Your task to perform on an android device: Open Youtube and go to "Your channel" Image 0: 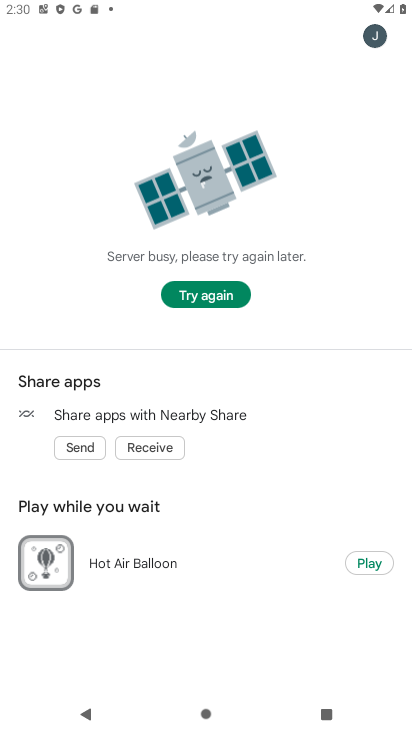
Step 0: press home button
Your task to perform on an android device: Open Youtube and go to "Your channel" Image 1: 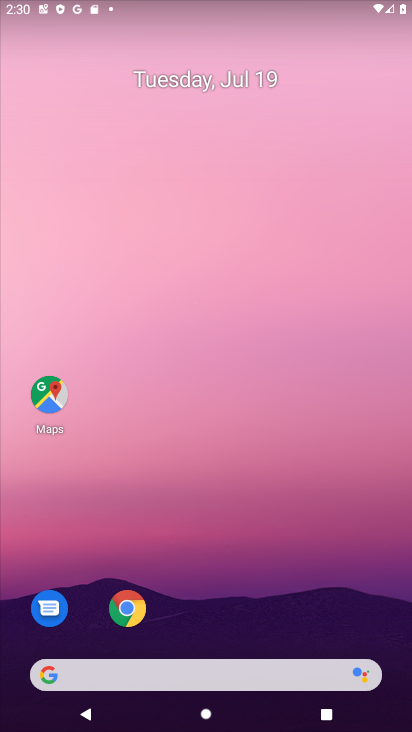
Step 1: drag from (304, 544) to (201, 38)
Your task to perform on an android device: Open Youtube and go to "Your channel" Image 2: 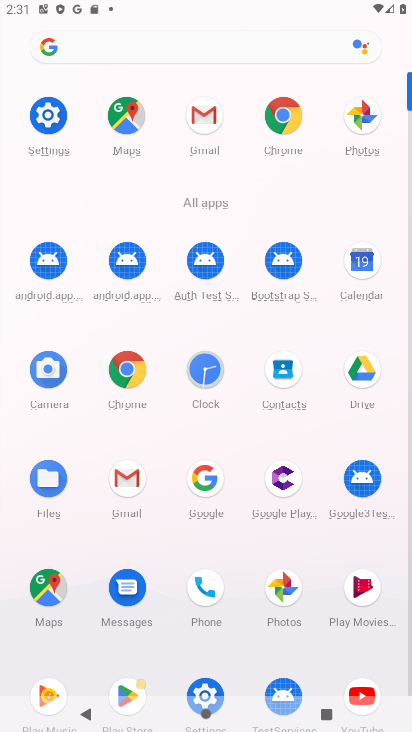
Step 2: click (357, 695)
Your task to perform on an android device: Open Youtube and go to "Your channel" Image 3: 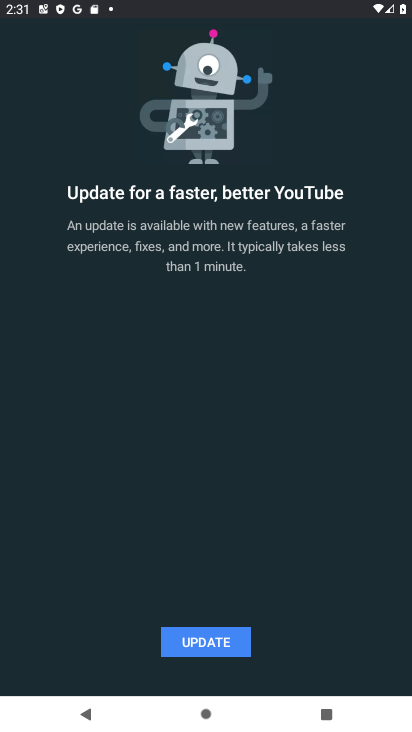
Step 3: click (204, 641)
Your task to perform on an android device: Open Youtube and go to "Your channel" Image 4: 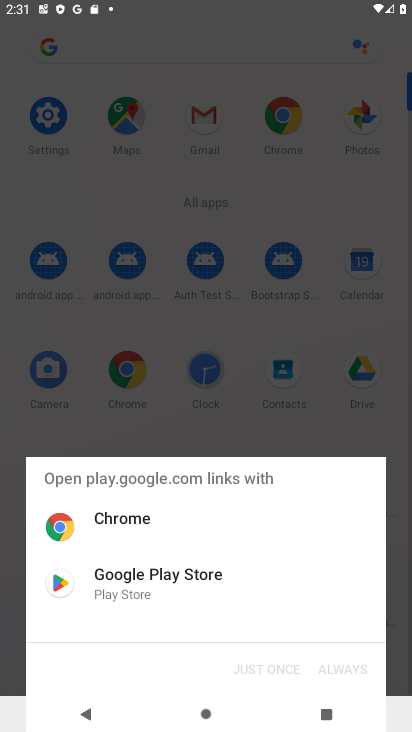
Step 4: click (193, 584)
Your task to perform on an android device: Open Youtube and go to "Your channel" Image 5: 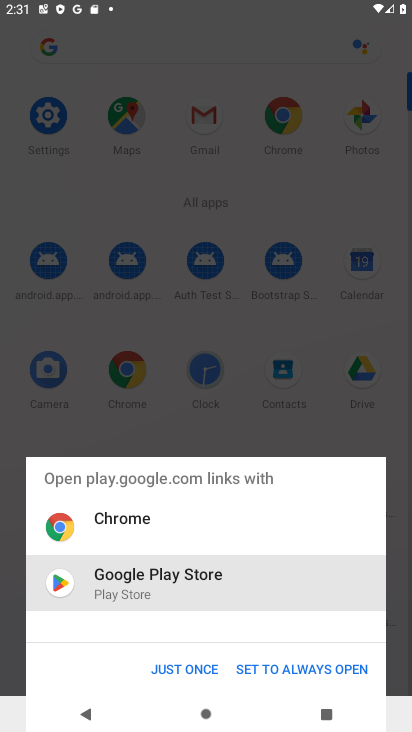
Step 5: click (189, 661)
Your task to perform on an android device: Open Youtube and go to "Your channel" Image 6: 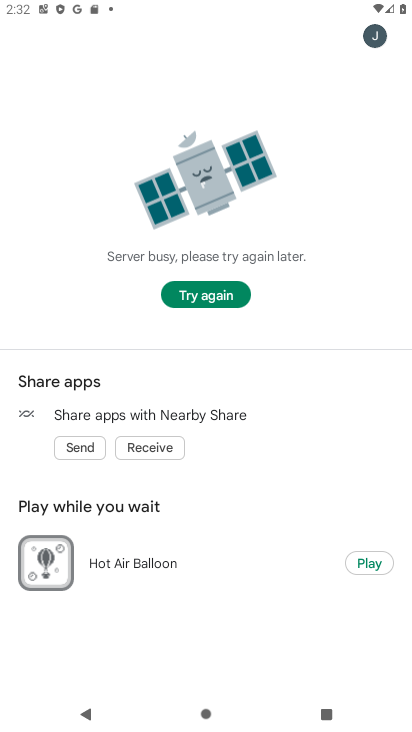
Step 6: task complete